Your task to perform on an android device: Is it going to rain this weekend? Image 0: 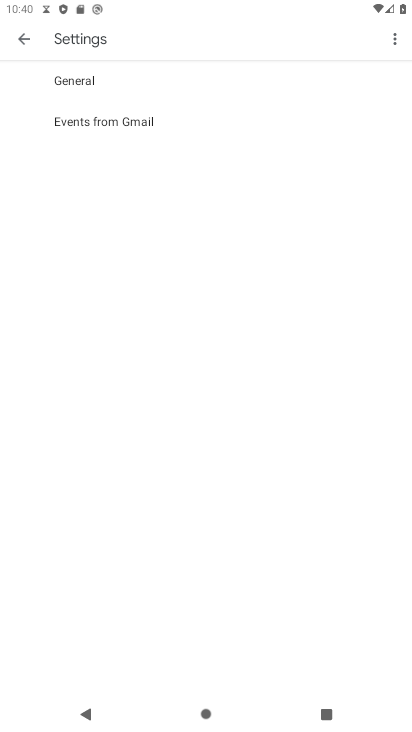
Step 0: press home button
Your task to perform on an android device: Is it going to rain this weekend? Image 1: 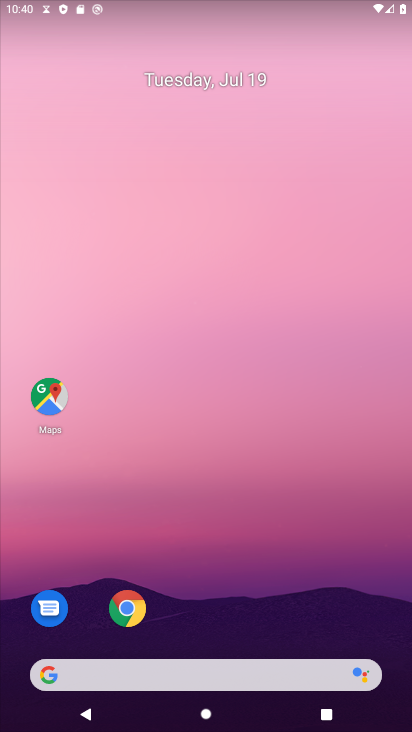
Step 1: click (197, 670)
Your task to perform on an android device: Is it going to rain this weekend? Image 2: 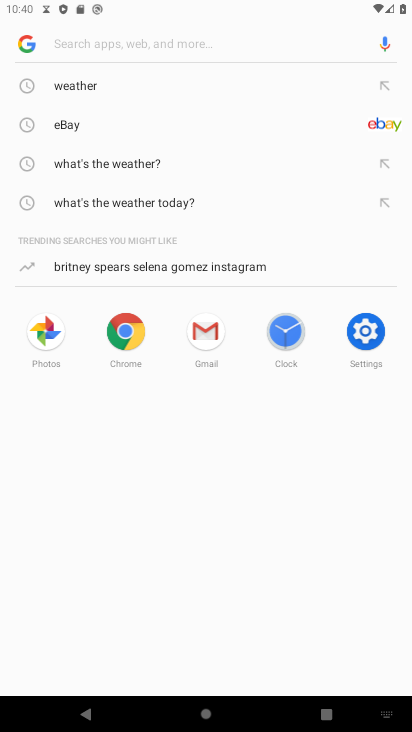
Step 2: type "is it going to rain this weekend"
Your task to perform on an android device: Is it going to rain this weekend? Image 3: 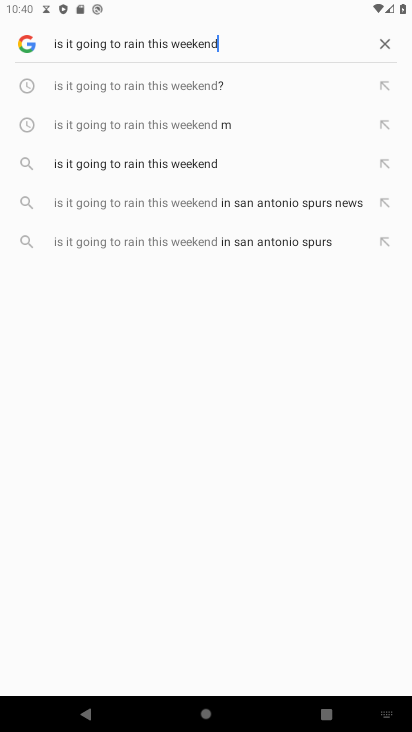
Step 3: click (96, 88)
Your task to perform on an android device: Is it going to rain this weekend? Image 4: 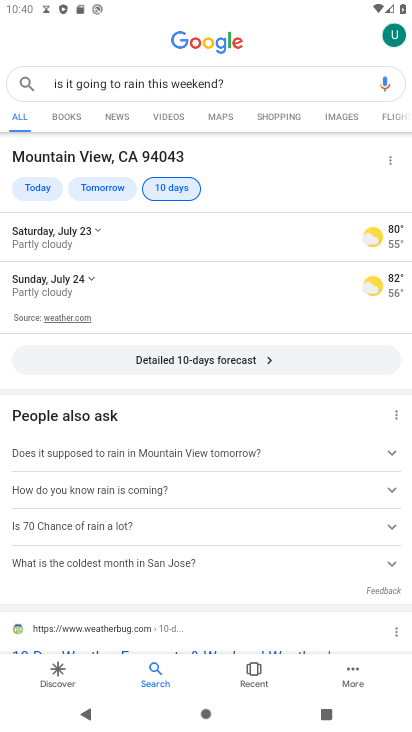
Step 4: task complete